Your task to perform on an android device: Show me popular videos on Youtube Image 0: 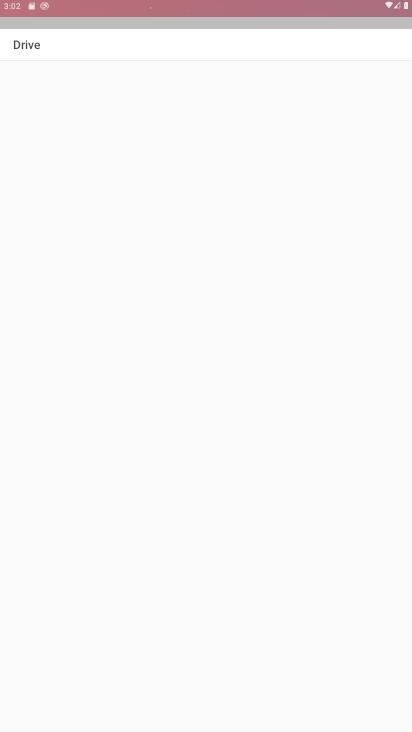
Step 0: press home button
Your task to perform on an android device: Show me popular videos on Youtube Image 1: 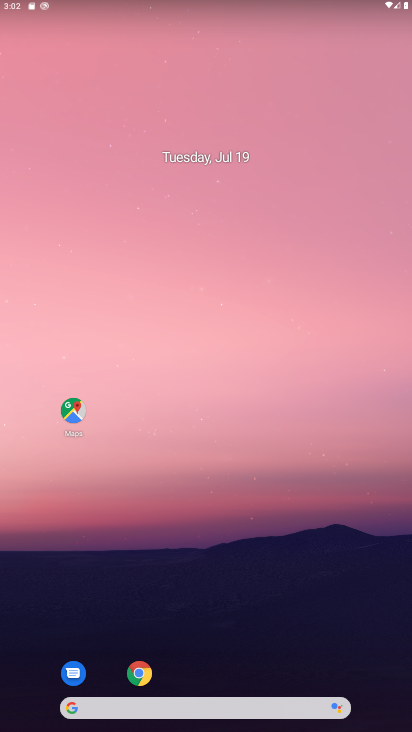
Step 1: drag from (219, 654) to (222, 340)
Your task to perform on an android device: Show me popular videos on Youtube Image 2: 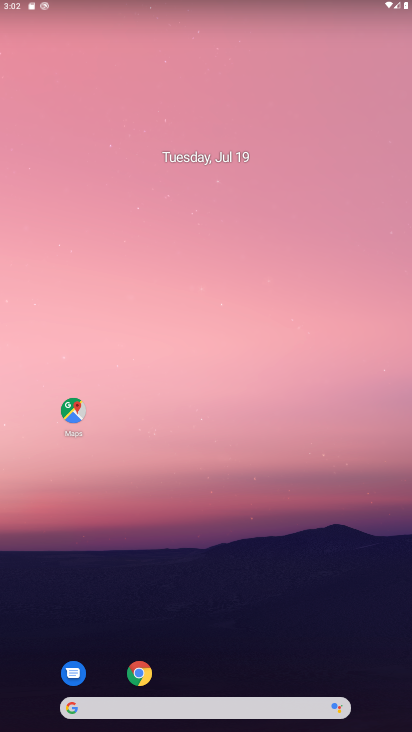
Step 2: drag from (209, 652) to (196, 5)
Your task to perform on an android device: Show me popular videos on Youtube Image 3: 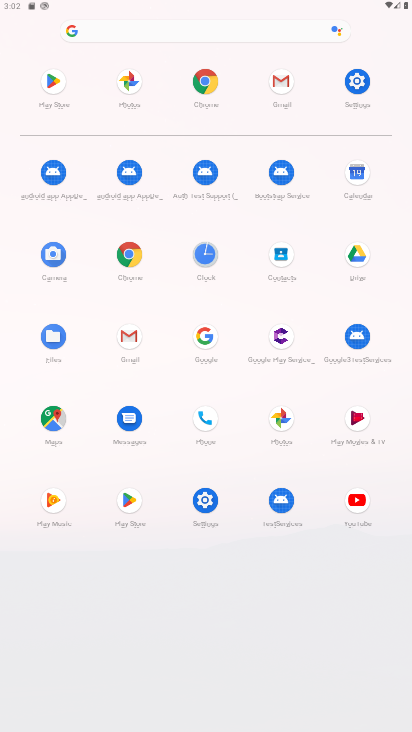
Step 3: click (358, 509)
Your task to perform on an android device: Show me popular videos on Youtube Image 4: 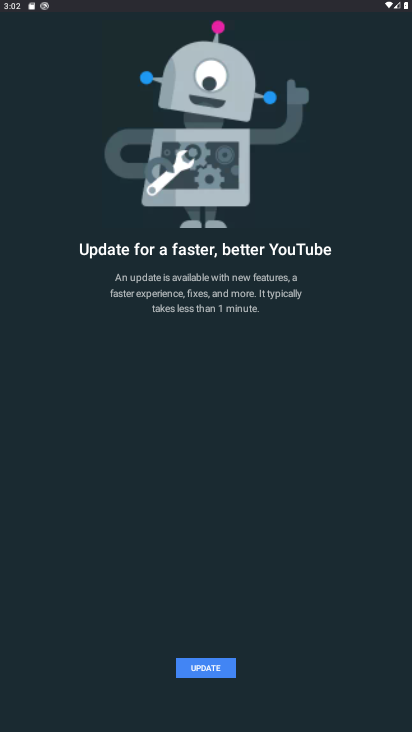
Step 4: click (214, 669)
Your task to perform on an android device: Show me popular videos on Youtube Image 5: 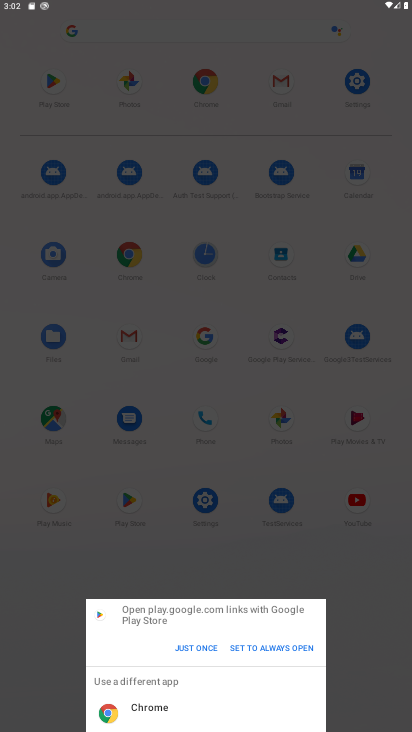
Step 5: click (202, 647)
Your task to perform on an android device: Show me popular videos on Youtube Image 6: 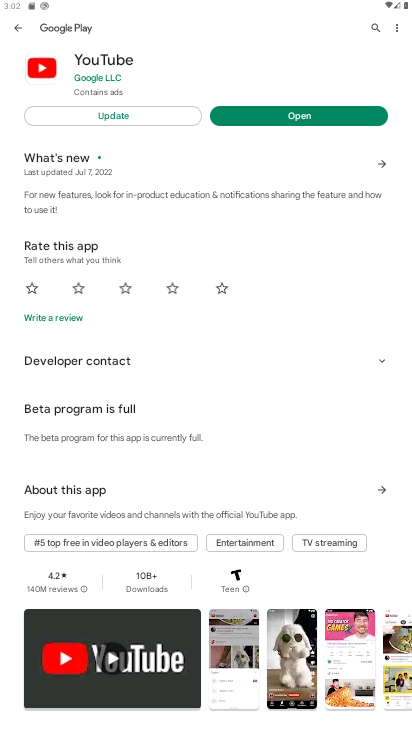
Step 6: click (113, 115)
Your task to perform on an android device: Show me popular videos on Youtube Image 7: 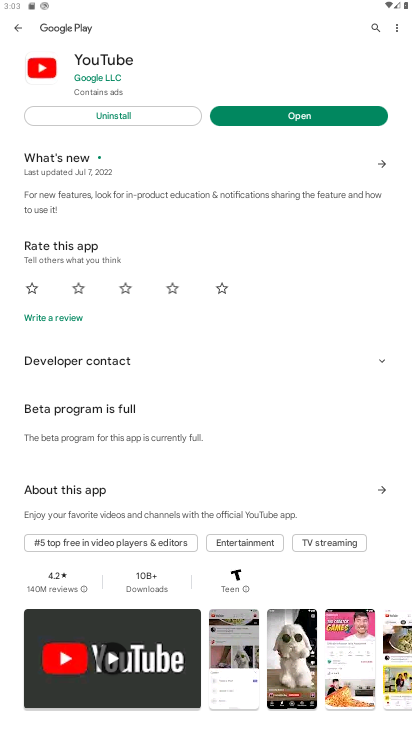
Step 7: click (301, 113)
Your task to perform on an android device: Show me popular videos on Youtube Image 8: 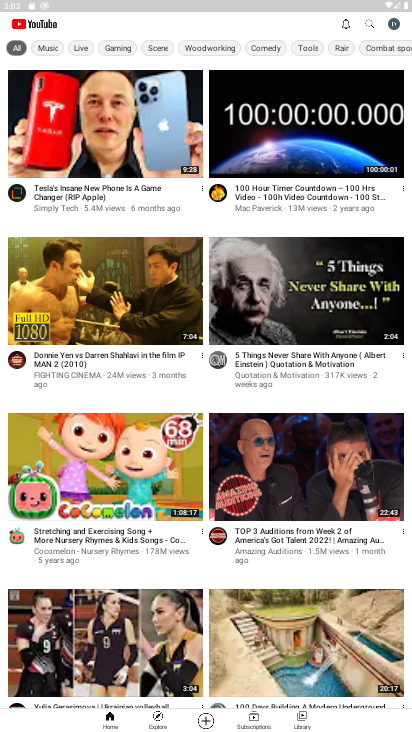
Step 8: click (154, 716)
Your task to perform on an android device: Show me popular videos on Youtube Image 9: 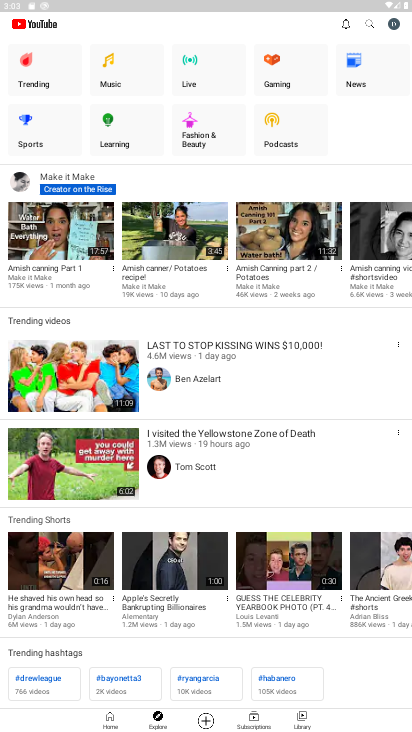
Step 9: click (51, 77)
Your task to perform on an android device: Show me popular videos on Youtube Image 10: 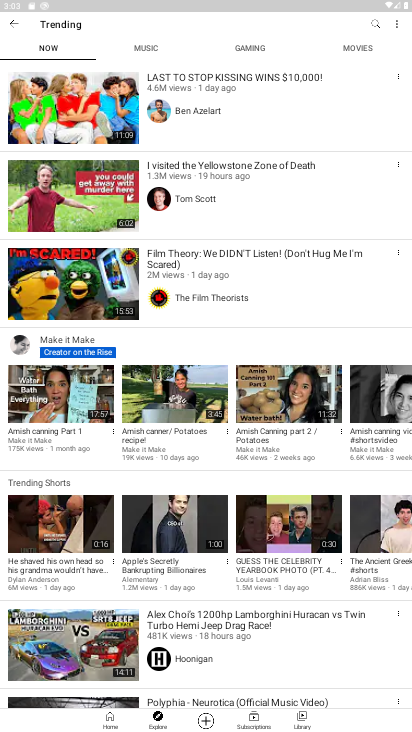
Step 10: task complete